Your task to perform on an android device: What's the weather going to be this weekend? Image 0: 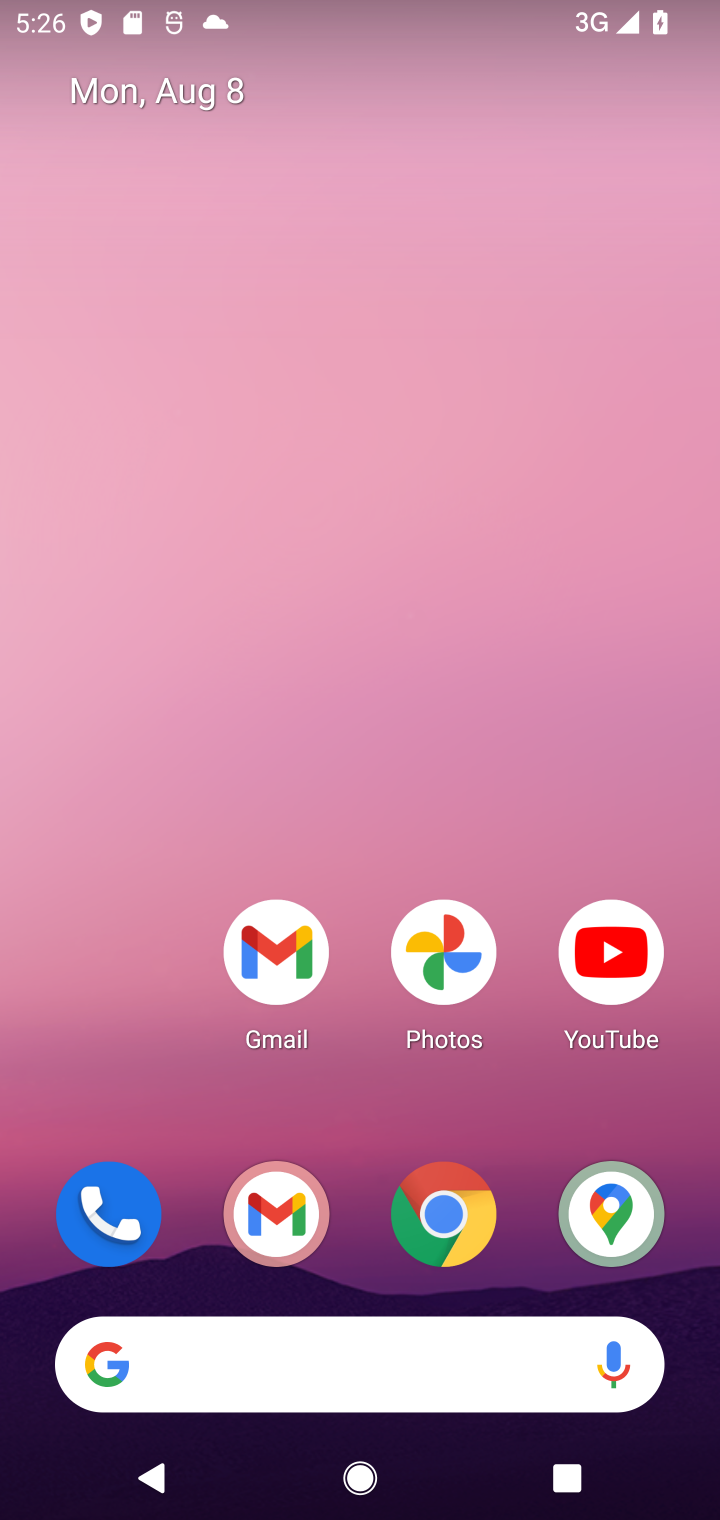
Step 0: drag from (365, 986) to (356, 52)
Your task to perform on an android device: What's the weather going to be this weekend? Image 1: 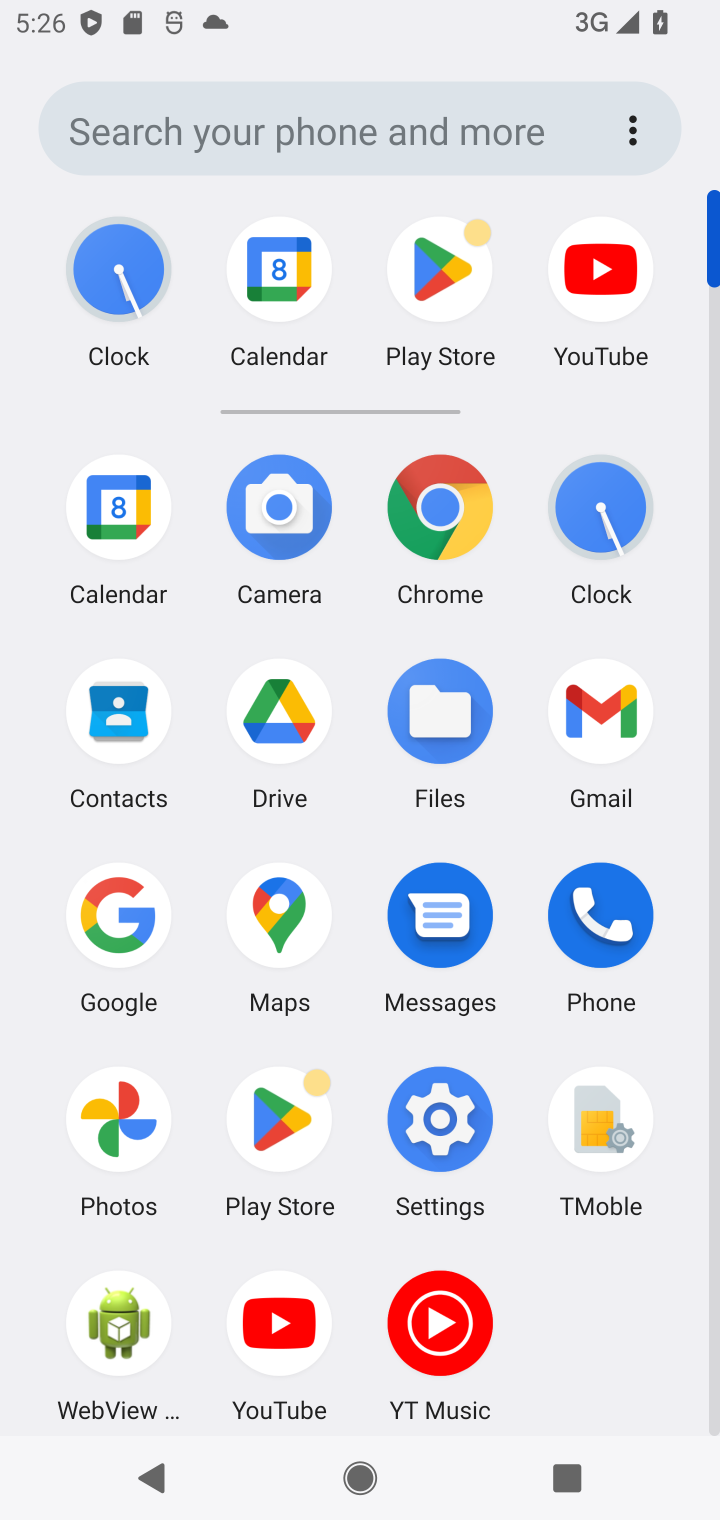
Step 1: click (133, 894)
Your task to perform on an android device: What's the weather going to be this weekend? Image 2: 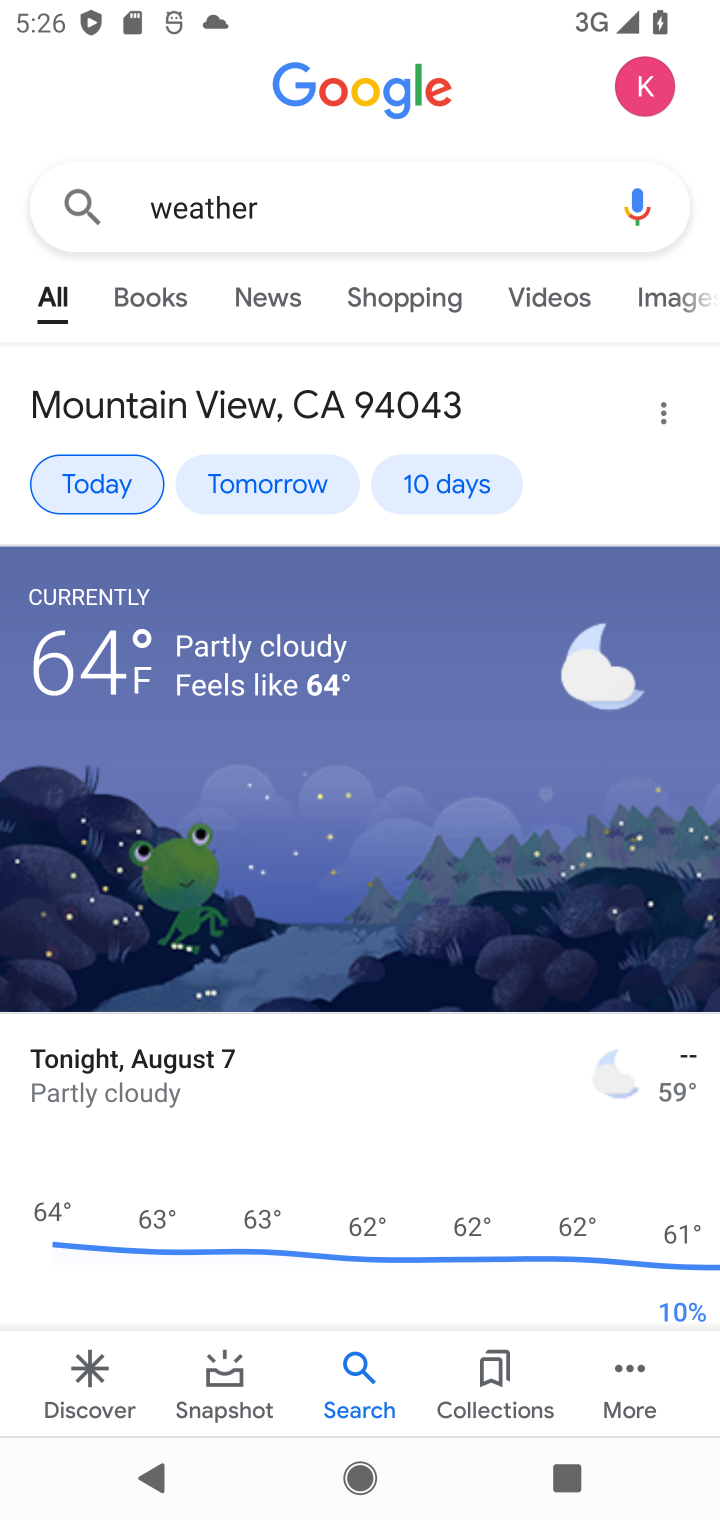
Step 2: click (445, 480)
Your task to perform on an android device: What's the weather going to be this weekend? Image 3: 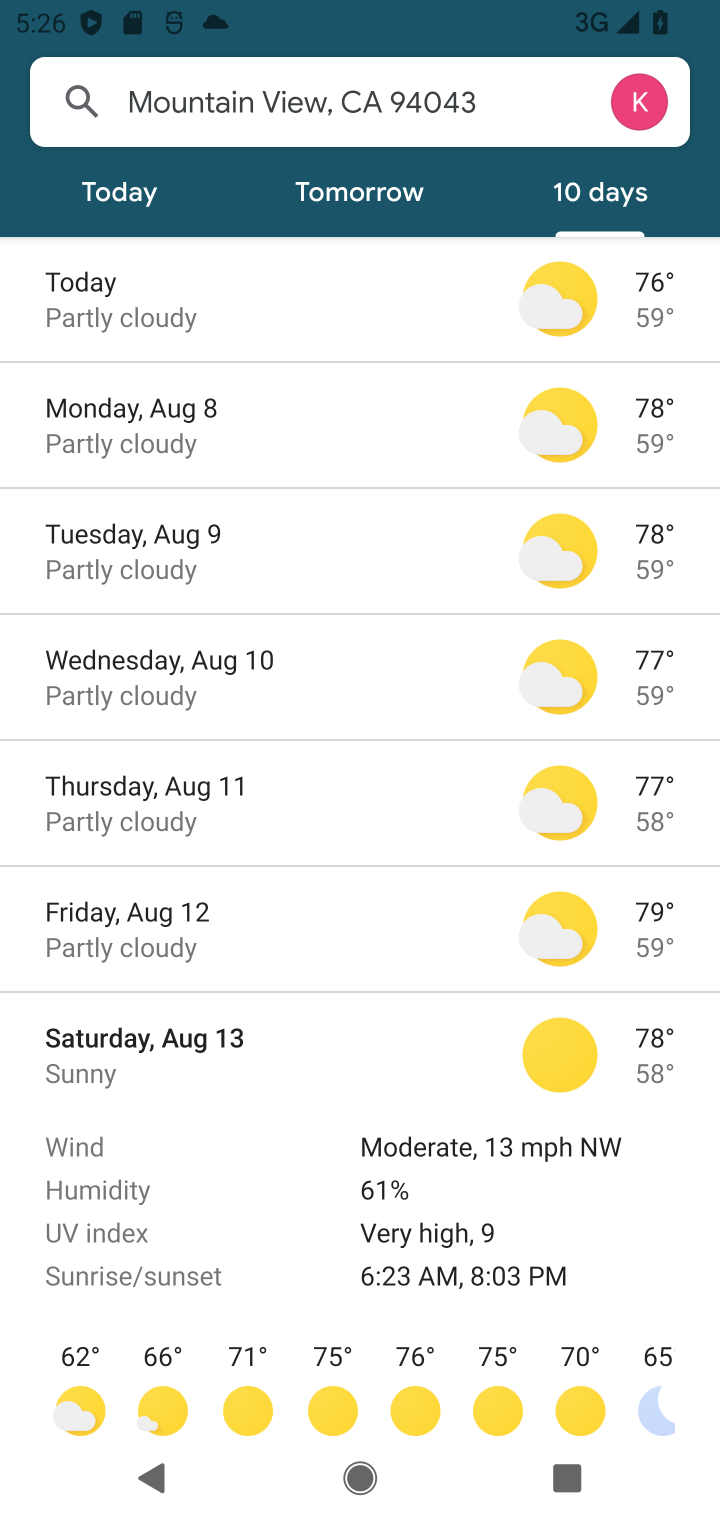
Step 3: task complete